Your task to perform on an android device: Go to sound settings Image 0: 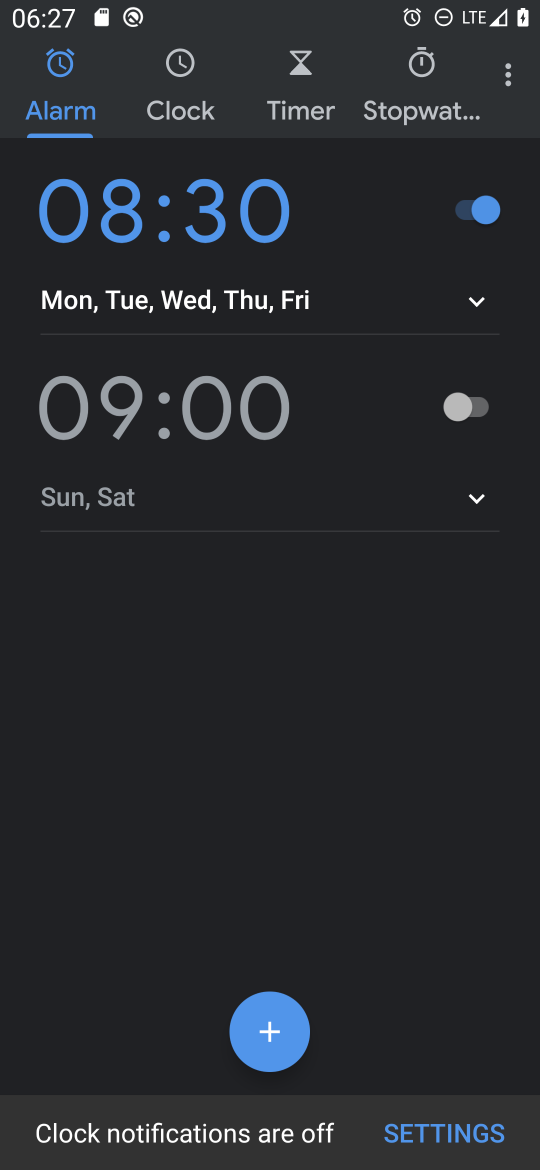
Step 0: press home button
Your task to perform on an android device: Go to sound settings Image 1: 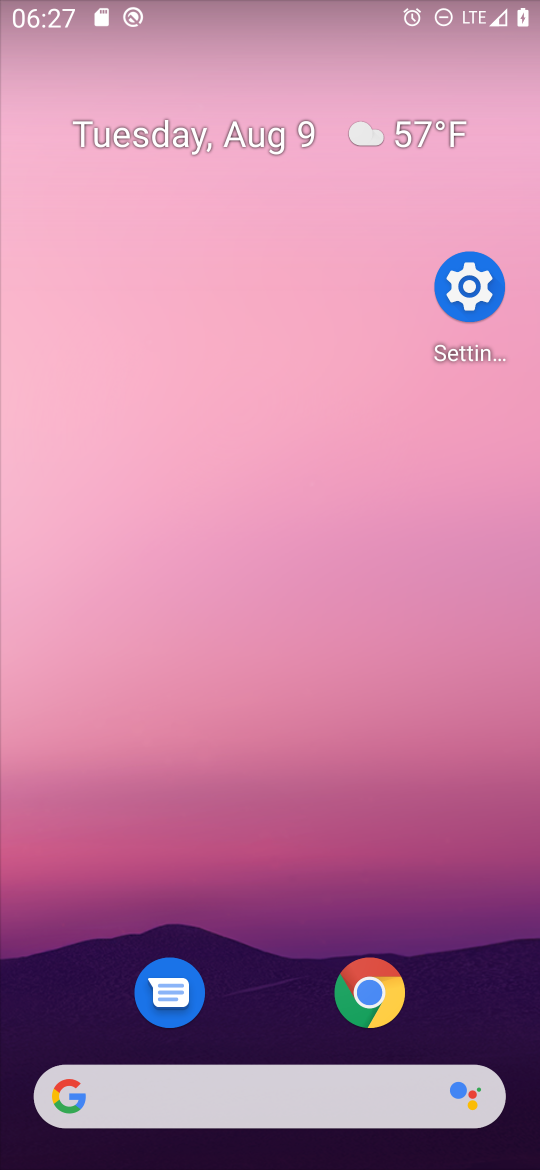
Step 1: drag from (294, 1084) to (301, 73)
Your task to perform on an android device: Go to sound settings Image 2: 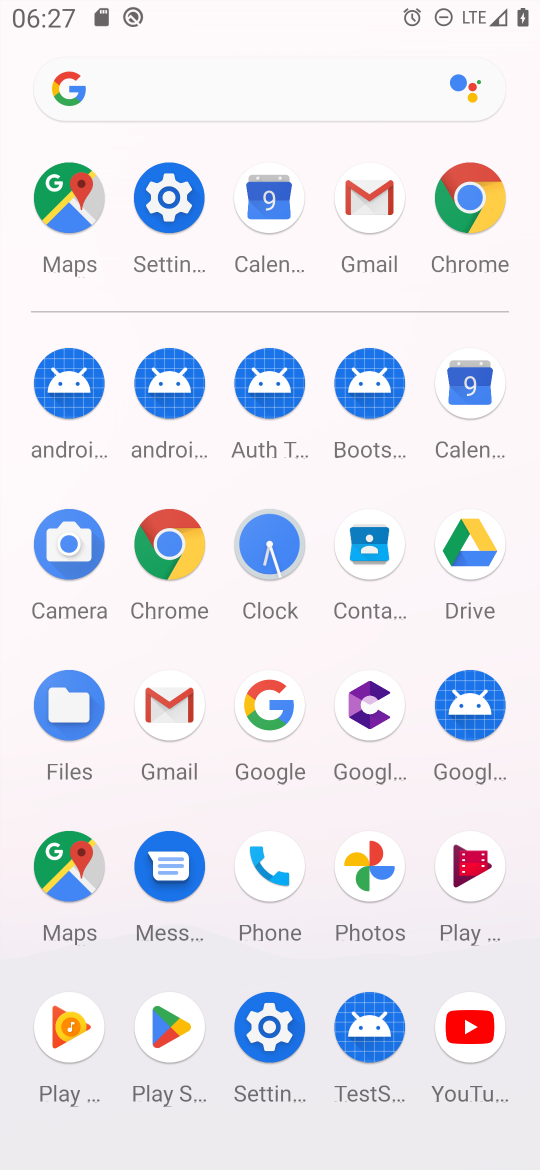
Step 2: click (175, 195)
Your task to perform on an android device: Go to sound settings Image 3: 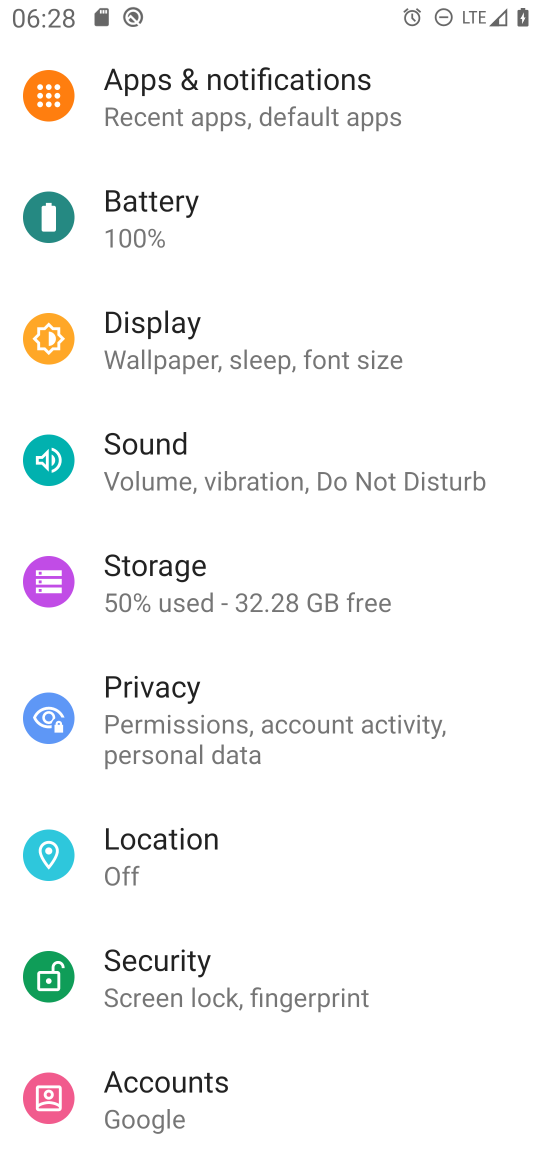
Step 3: click (228, 453)
Your task to perform on an android device: Go to sound settings Image 4: 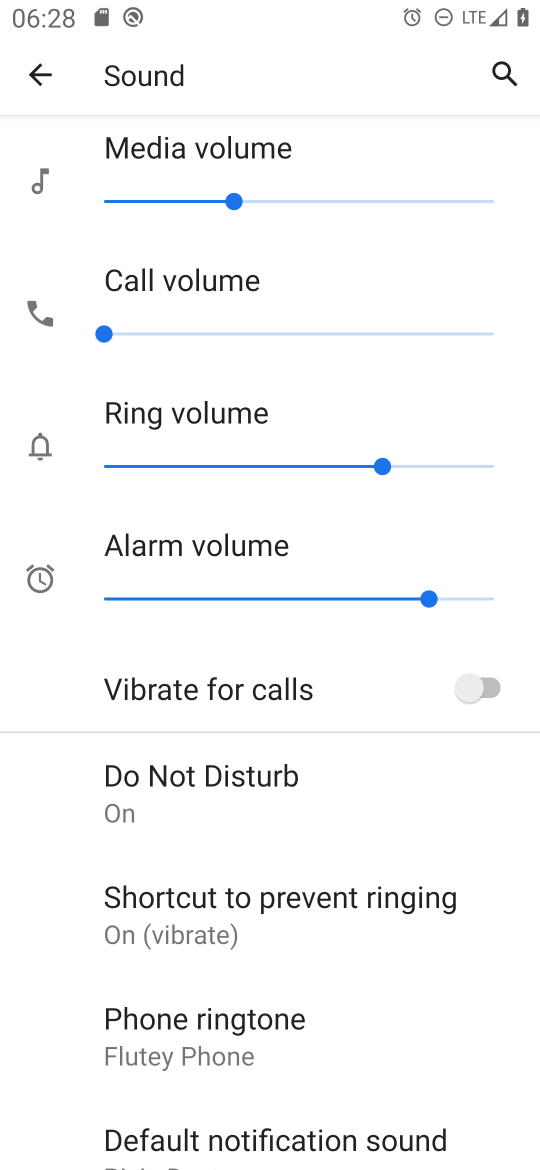
Step 4: task complete